Your task to perform on an android device: Go to Maps Image 0: 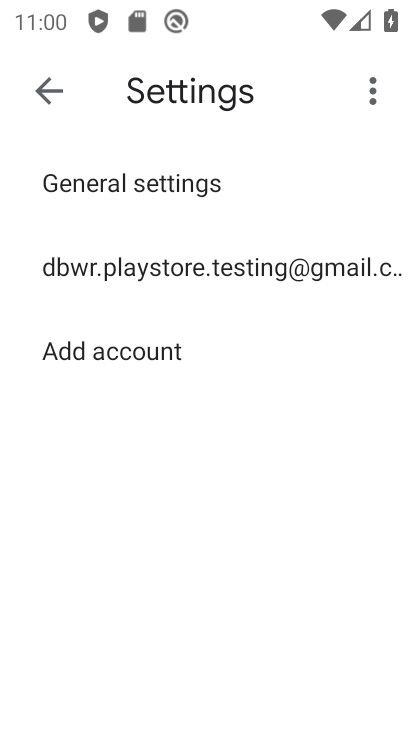
Step 0: press back button
Your task to perform on an android device: Go to Maps Image 1: 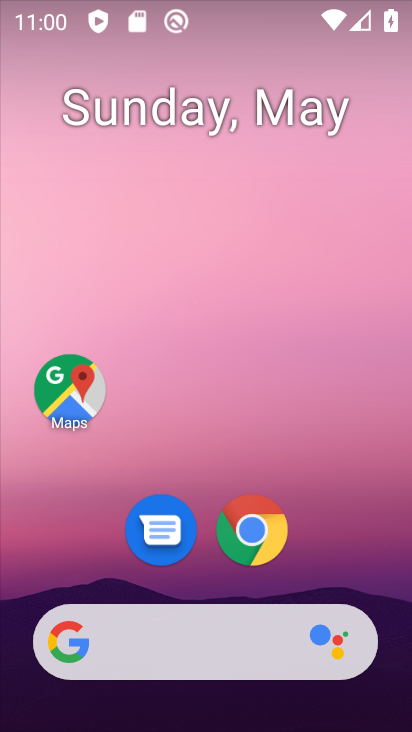
Step 1: click (60, 384)
Your task to perform on an android device: Go to Maps Image 2: 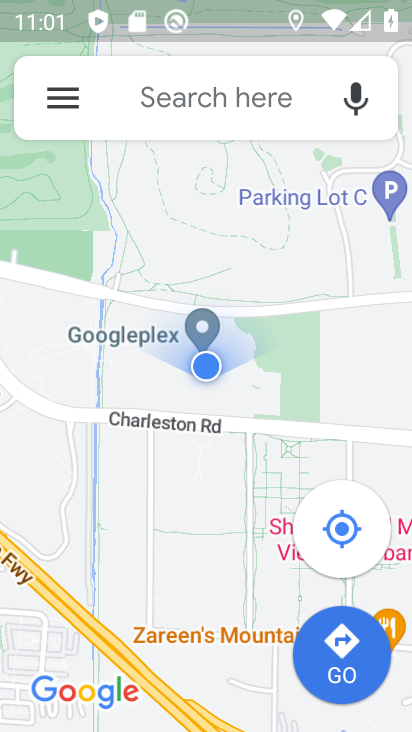
Step 2: task complete